Your task to perform on an android device: change the clock display to show seconds Image 0: 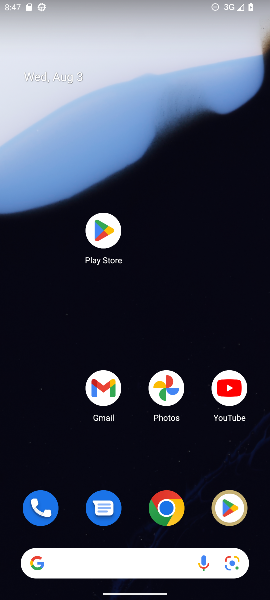
Step 0: drag from (157, 547) to (47, 41)
Your task to perform on an android device: change the clock display to show seconds Image 1: 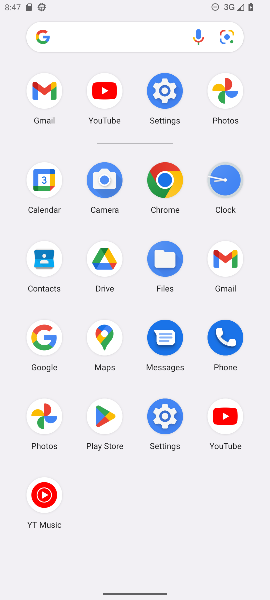
Step 1: click (222, 176)
Your task to perform on an android device: change the clock display to show seconds Image 2: 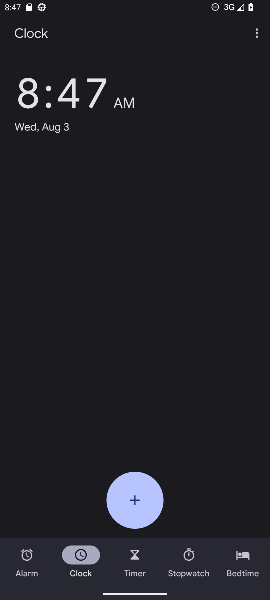
Step 2: click (252, 37)
Your task to perform on an android device: change the clock display to show seconds Image 3: 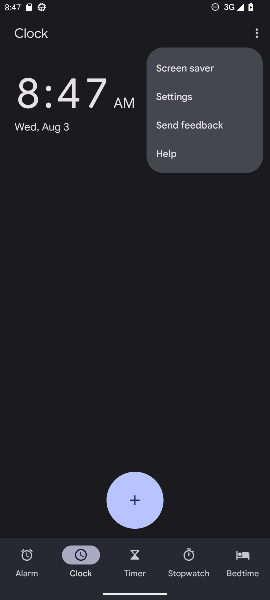
Step 3: click (172, 96)
Your task to perform on an android device: change the clock display to show seconds Image 4: 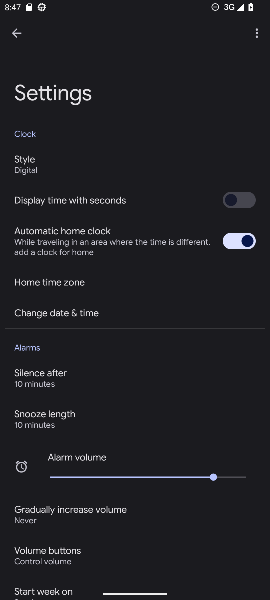
Step 4: click (236, 196)
Your task to perform on an android device: change the clock display to show seconds Image 5: 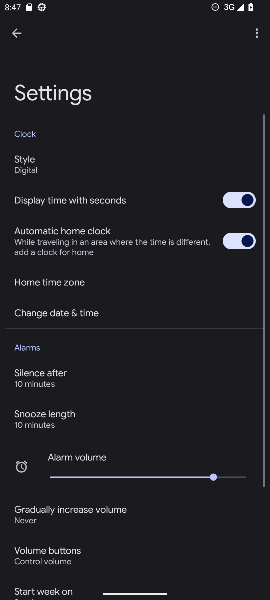
Step 5: task complete